Your task to perform on an android device: turn on priority inbox in the gmail app Image 0: 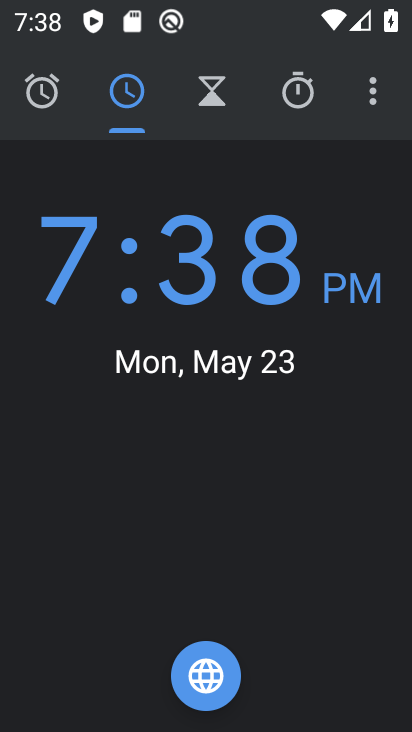
Step 0: press home button
Your task to perform on an android device: turn on priority inbox in the gmail app Image 1: 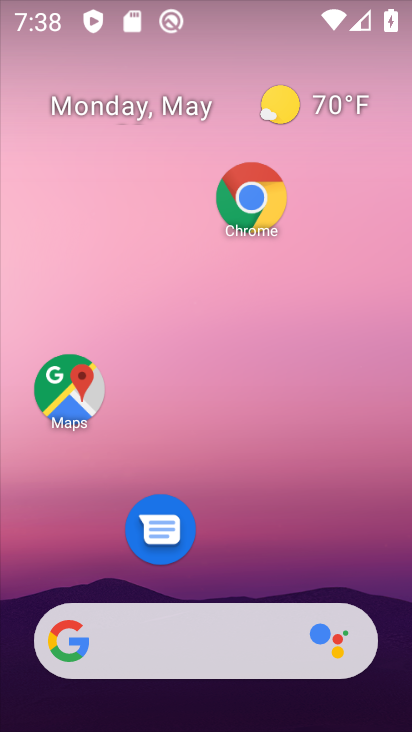
Step 1: drag from (217, 595) to (319, 55)
Your task to perform on an android device: turn on priority inbox in the gmail app Image 2: 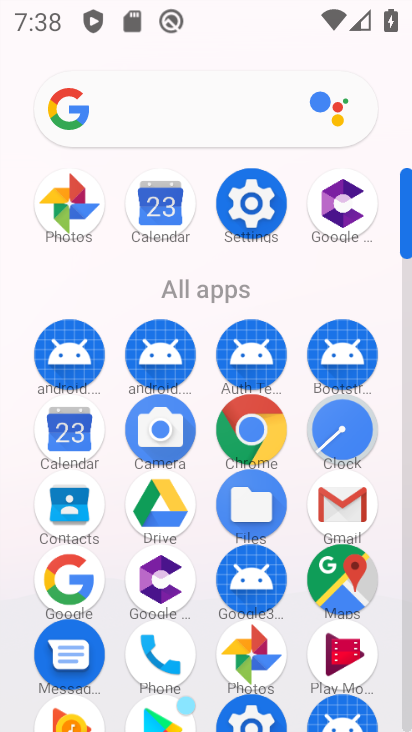
Step 2: click (345, 497)
Your task to perform on an android device: turn on priority inbox in the gmail app Image 3: 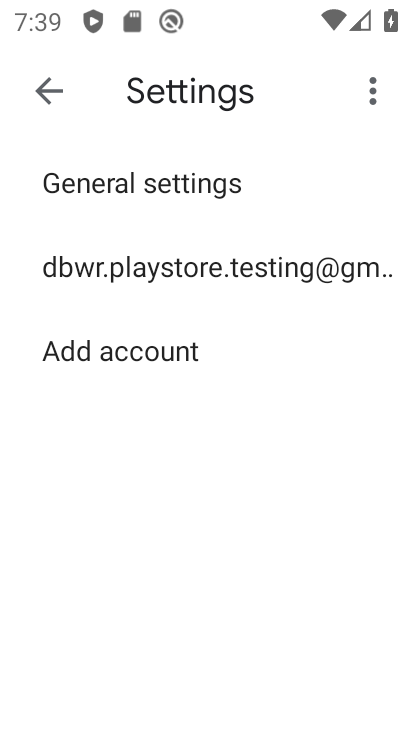
Step 3: click (210, 283)
Your task to perform on an android device: turn on priority inbox in the gmail app Image 4: 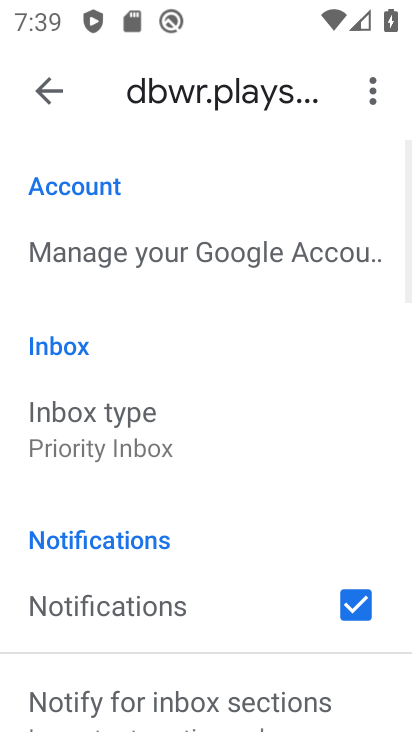
Step 4: click (187, 426)
Your task to perform on an android device: turn on priority inbox in the gmail app Image 5: 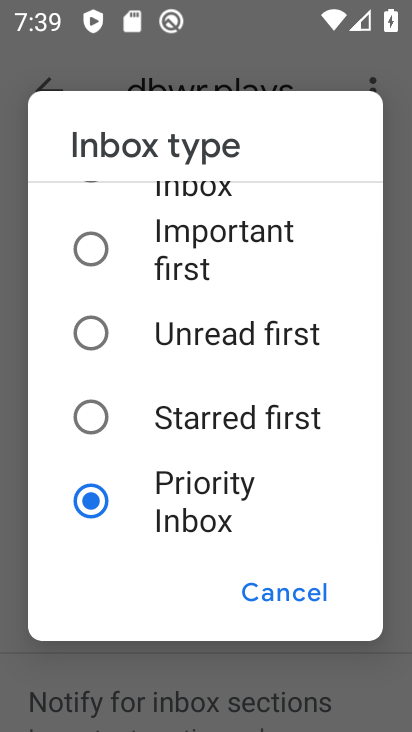
Step 5: click (146, 503)
Your task to perform on an android device: turn on priority inbox in the gmail app Image 6: 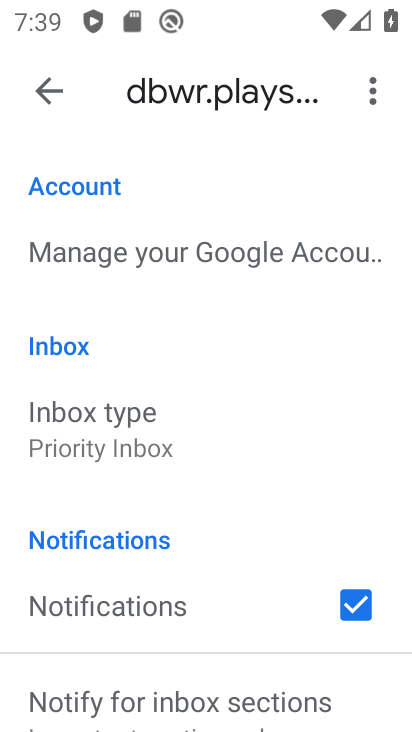
Step 6: task complete